Your task to perform on an android device: Turn on the flashlight Image 0: 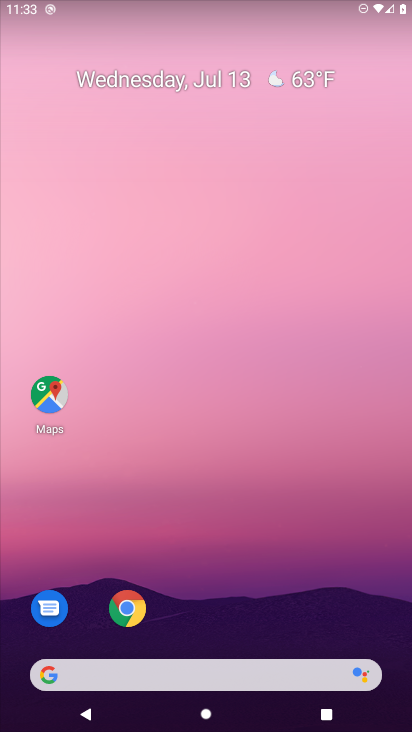
Step 0: drag from (221, 2) to (168, 325)
Your task to perform on an android device: Turn on the flashlight Image 1: 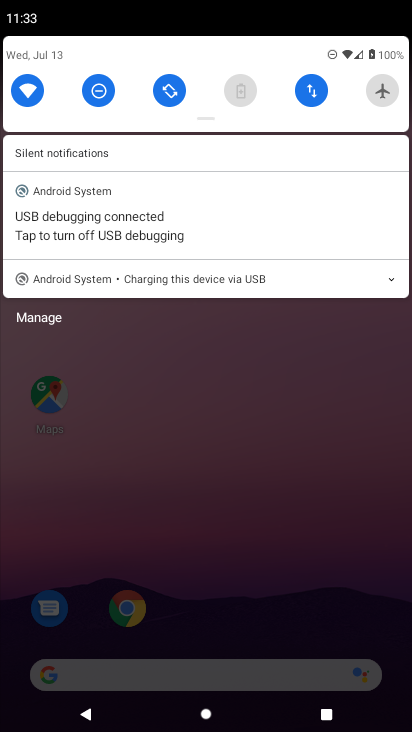
Step 1: task complete